Your task to perform on an android device: toggle priority inbox in the gmail app Image 0: 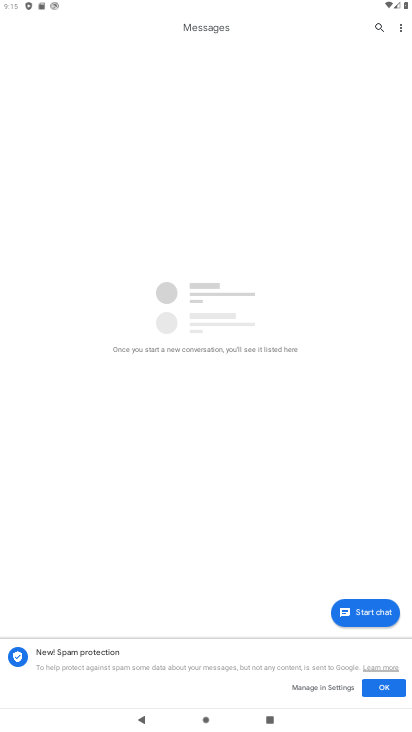
Step 0: press home button
Your task to perform on an android device: toggle priority inbox in the gmail app Image 1: 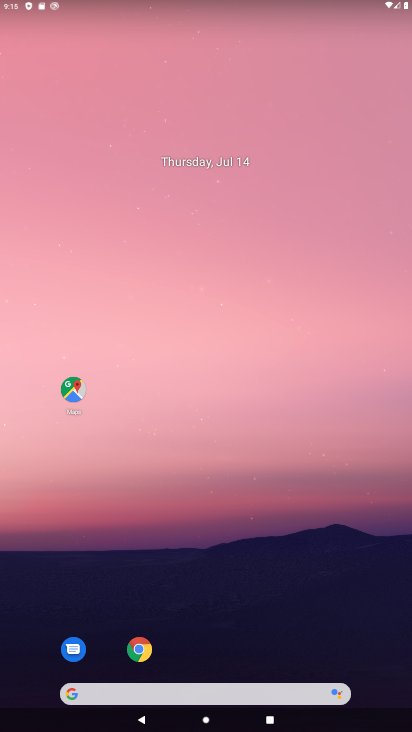
Step 1: drag from (237, 645) to (242, 159)
Your task to perform on an android device: toggle priority inbox in the gmail app Image 2: 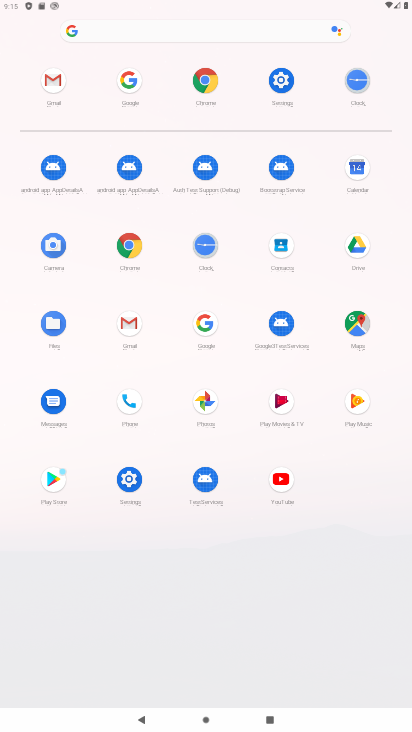
Step 2: click (138, 329)
Your task to perform on an android device: toggle priority inbox in the gmail app Image 3: 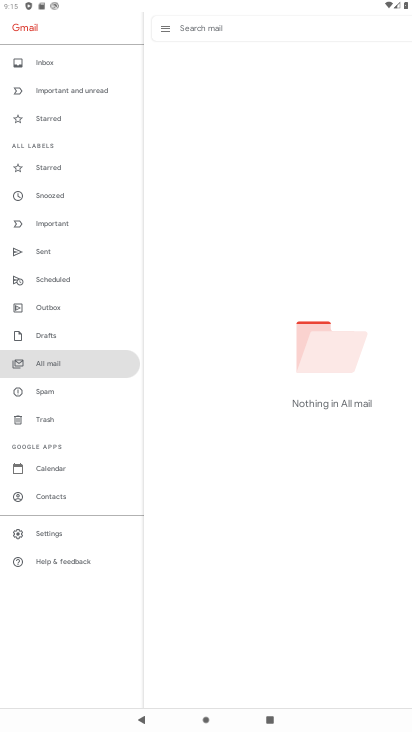
Step 3: click (44, 536)
Your task to perform on an android device: toggle priority inbox in the gmail app Image 4: 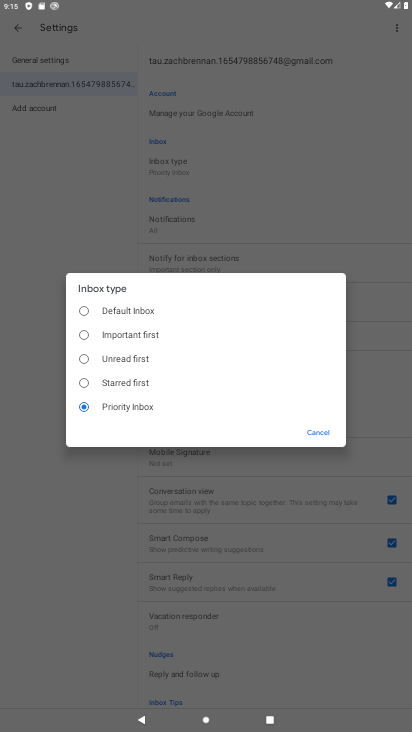
Step 4: click (133, 315)
Your task to perform on an android device: toggle priority inbox in the gmail app Image 5: 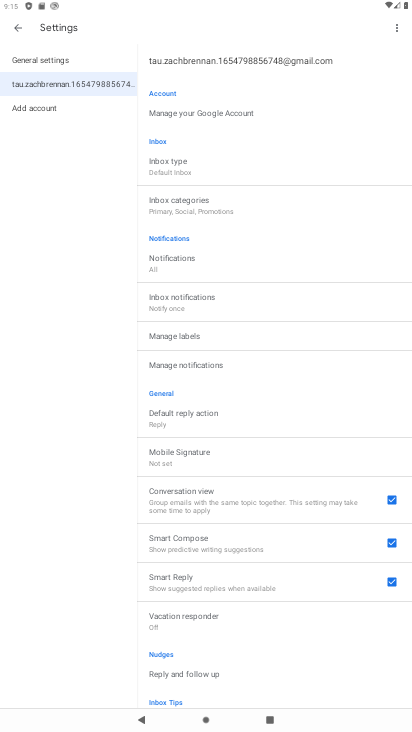
Step 5: task complete